Your task to perform on an android device: open the mobile data screen to see how much data has been used Image 0: 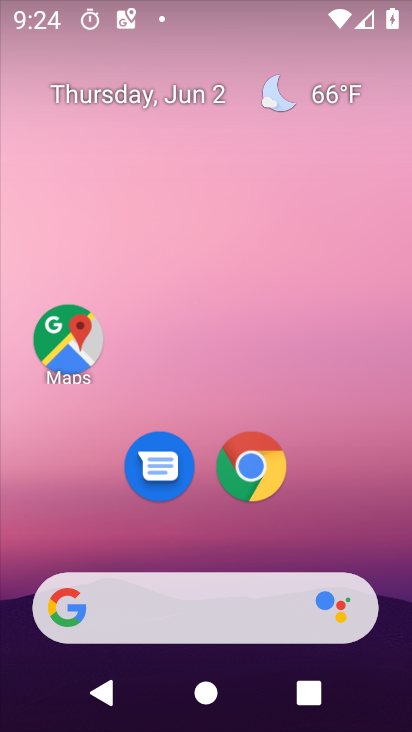
Step 0: press home button
Your task to perform on an android device: open the mobile data screen to see how much data has been used Image 1: 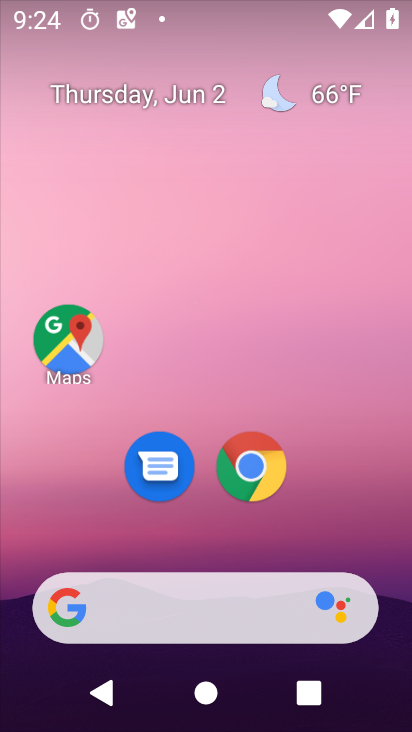
Step 1: drag from (47, 481) to (315, 102)
Your task to perform on an android device: open the mobile data screen to see how much data has been used Image 2: 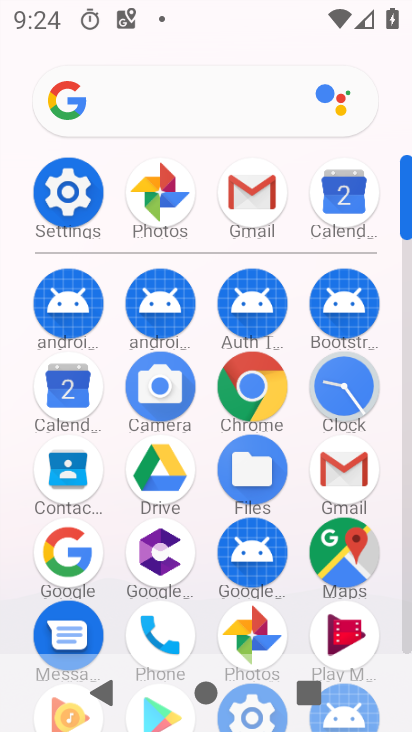
Step 2: click (66, 192)
Your task to perform on an android device: open the mobile data screen to see how much data has been used Image 3: 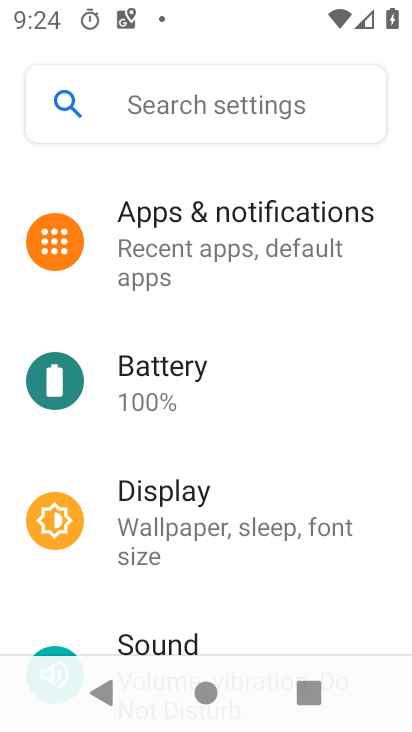
Step 3: drag from (182, 168) to (202, 557)
Your task to perform on an android device: open the mobile data screen to see how much data has been used Image 4: 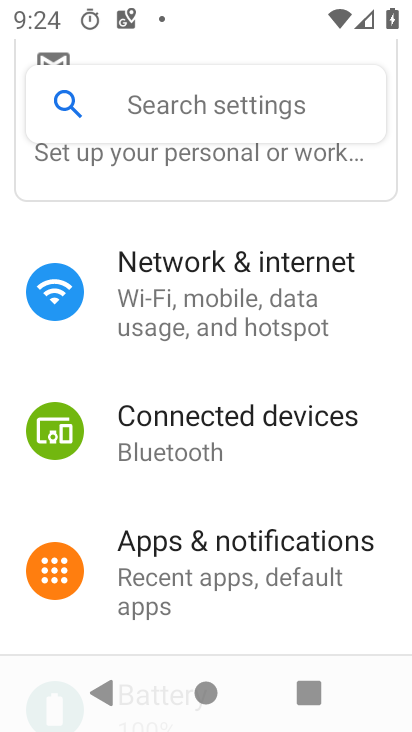
Step 4: click (226, 270)
Your task to perform on an android device: open the mobile data screen to see how much data has been used Image 5: 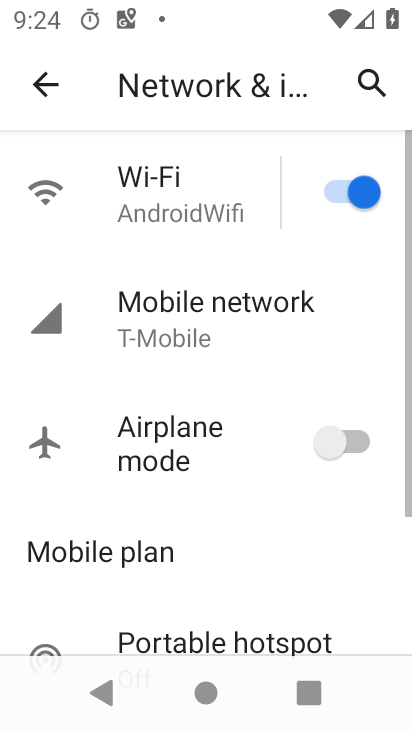
Step 5: click (203, 316)
Your task to perform on an android device: open the mobile data screen to see how much data has been used Image 6: 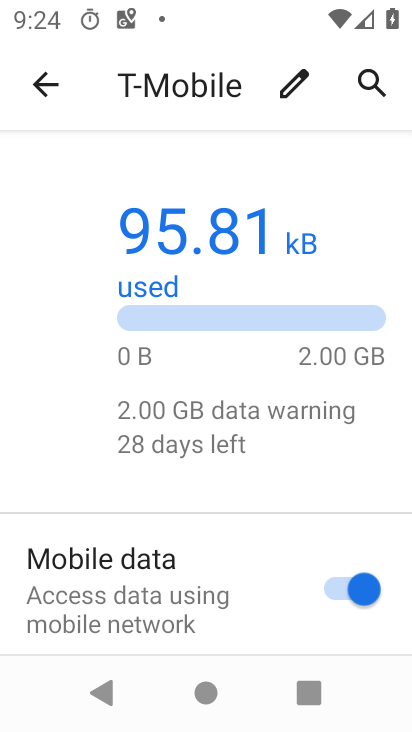
Step 6: task complete